Your task to perform on an android device: turn off translation in the chrome app Image 0: 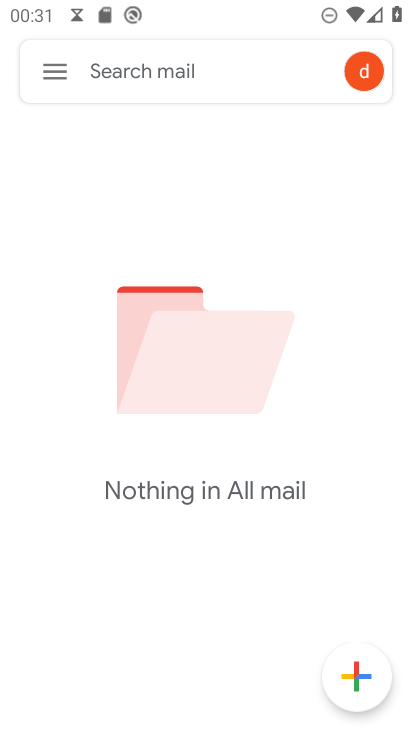
Step 0: press home button
Your task to perform on an android device: turn off translation in the chrome app Image 1: 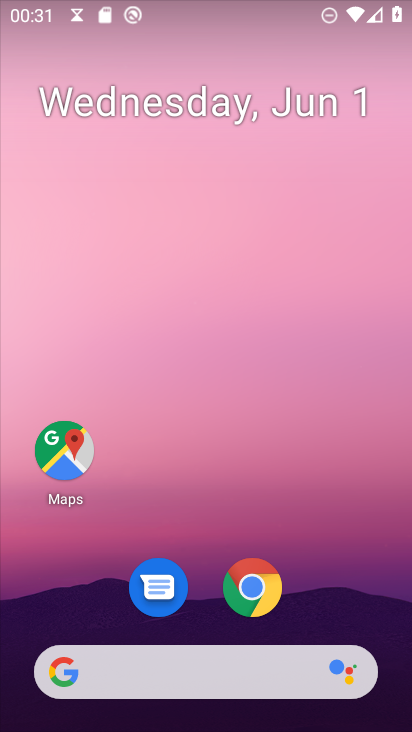
Step 1: click (244, 583)
Your task to perform on an android device: turn off translation in the chrome app Image 2: 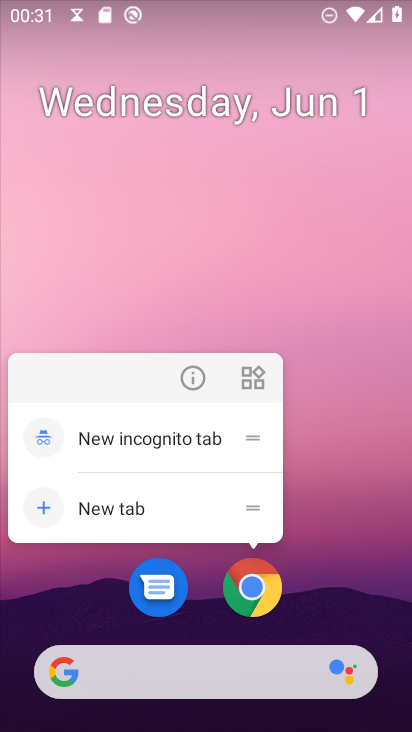
Step 2: click (243, 578)
Your task to perform on an android device: turn off translation in the chrome app Image 3: 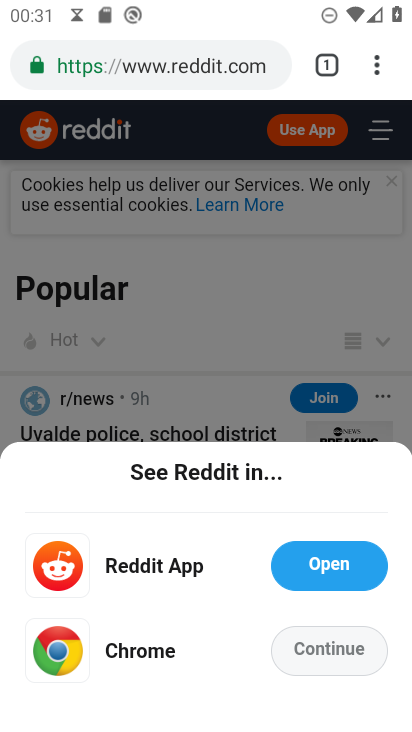
Step 3: click (384, 65)
Your task to perform on an android device: turn off translation in the chrome app Image 4: 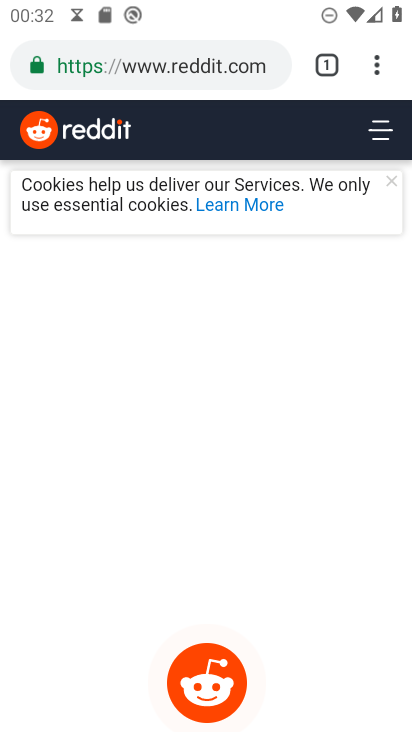
Step 4: click (384, 65)
Your task to perform on an android device: turn off translation in the chrome app Image 5: 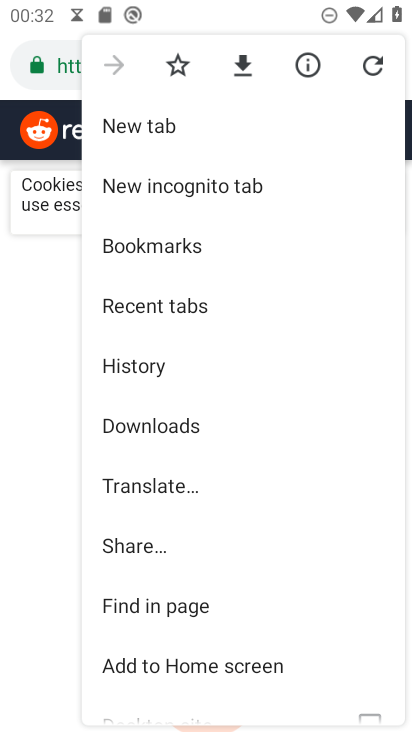
Step 5: drag from (238, 635) to (266, 205)
Your task to perform on an android device: turn off translation in the chrome app Image 6: 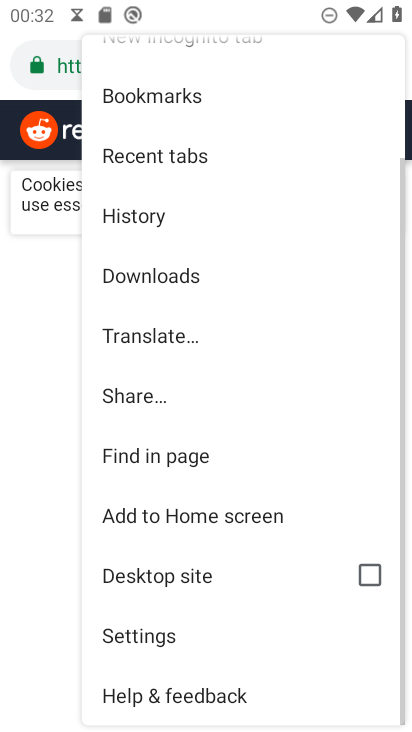
Step 6: click (205, 646)
Your task to perform on an android device: turn off translation in the chrome app Image 7: 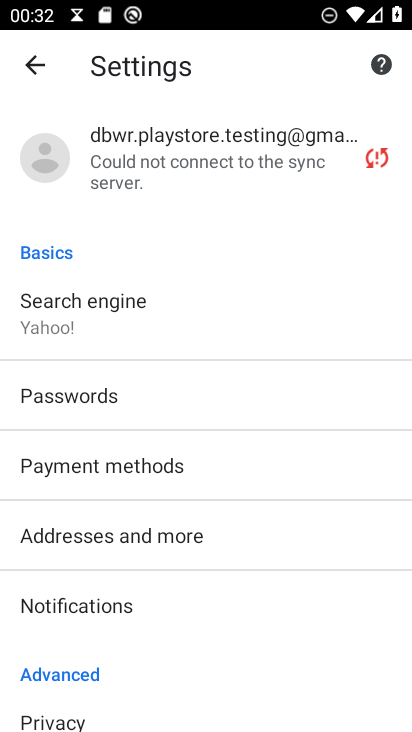
Step 7: drag from (174, 667) to (165, 200)
Your task to perform on an android device: turn off translation in the chrome app Image 8: 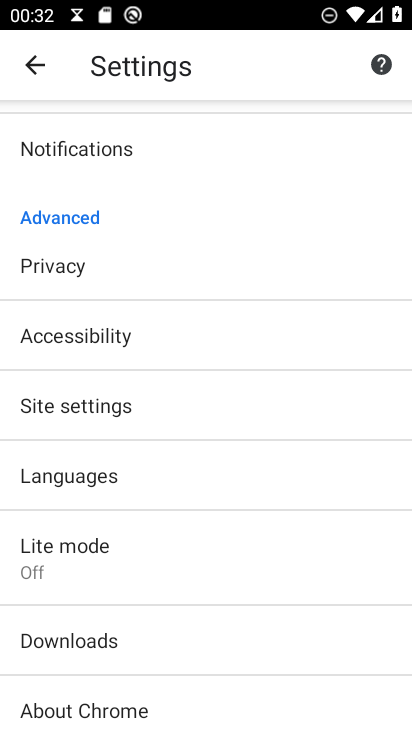
Step 8: click (111, 485)
Your task to perform on an android device: turn off translation in the chrome app Image 9: 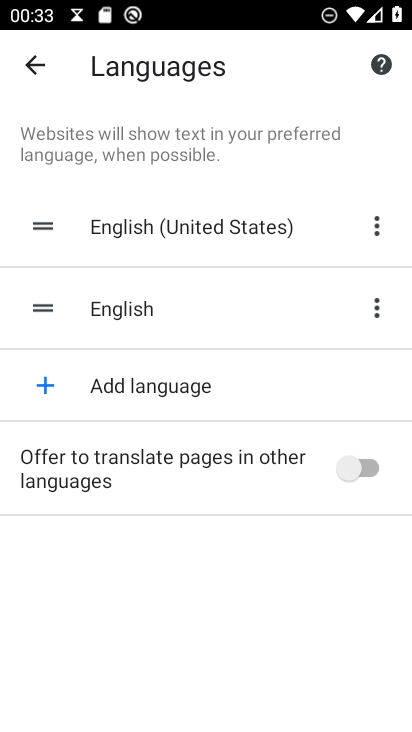
Step 9: task complete